Your task to perform on an android device: Search for sushi restaurants on Maps Image 0: 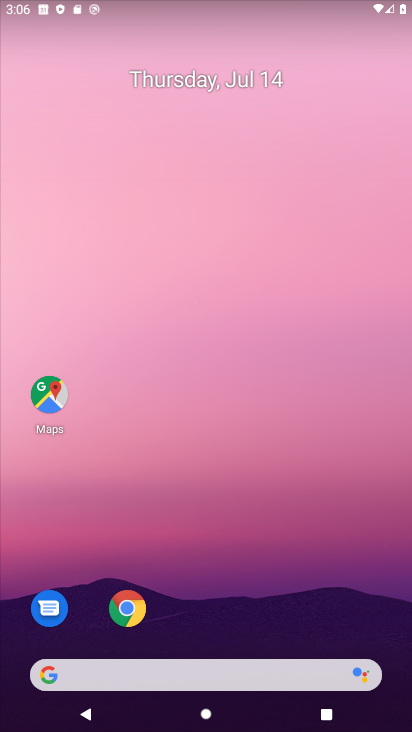
Step 0: click (48, 403)
Your task to perform on an android device: Search for sushi restaurants on Maps Image 1: 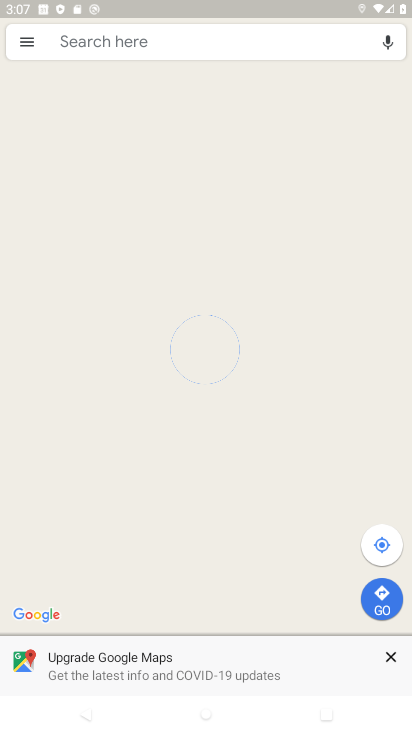
Step 1: click (231, 38)
Your task to perform on an android device: Search for sushi restaurants on Maps Image 2: 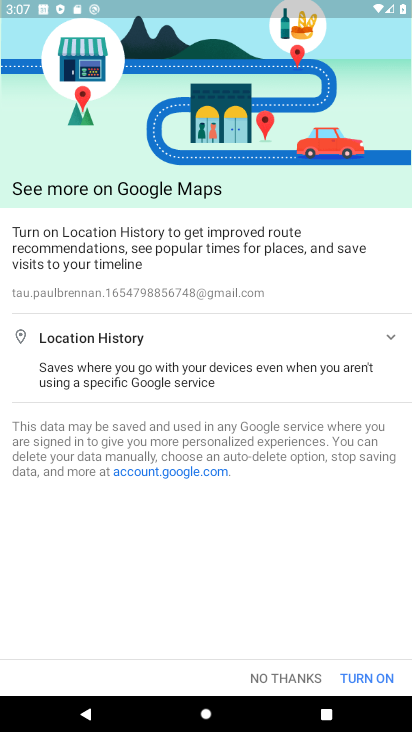
Step 2: click (288, 683)
Your task to perform on an android device: Search for sushi restaurants on Maps Image 3: 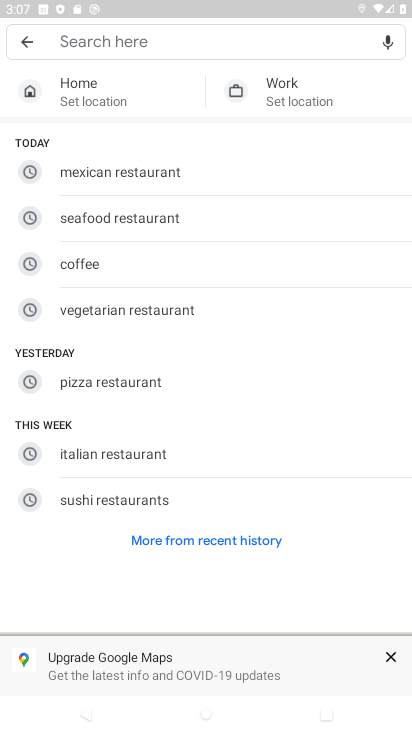
Step 3: click (190, 40)
Your task to perform on an android device: Search for sushi restaurants on Maps Image 4: 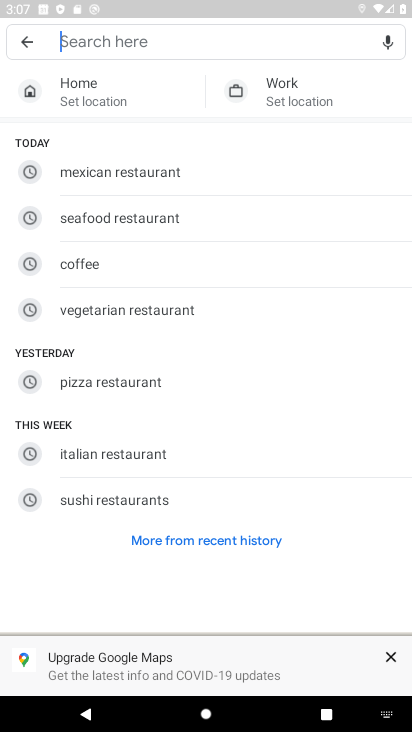
Step 4: type "sushi restaurants"
Your task to perform on an android device: Search for sushi restaurants on Maps Image 5: 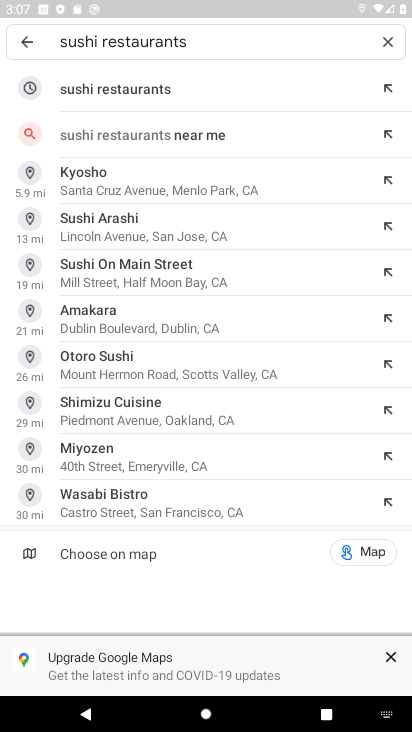
Step 5: click (169, 89)
Your task to perform on an android device: Search for sushi restaurants on Maps Image 6: 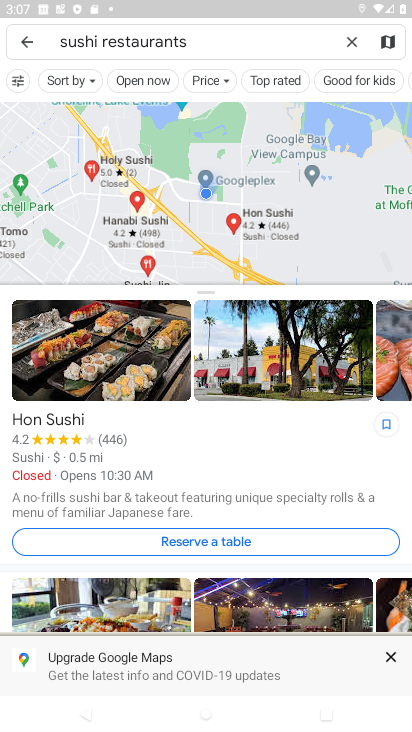
Step 6: task complete